Your task to perform on an android device: Open calendar and show me the third week of next month Image 0: 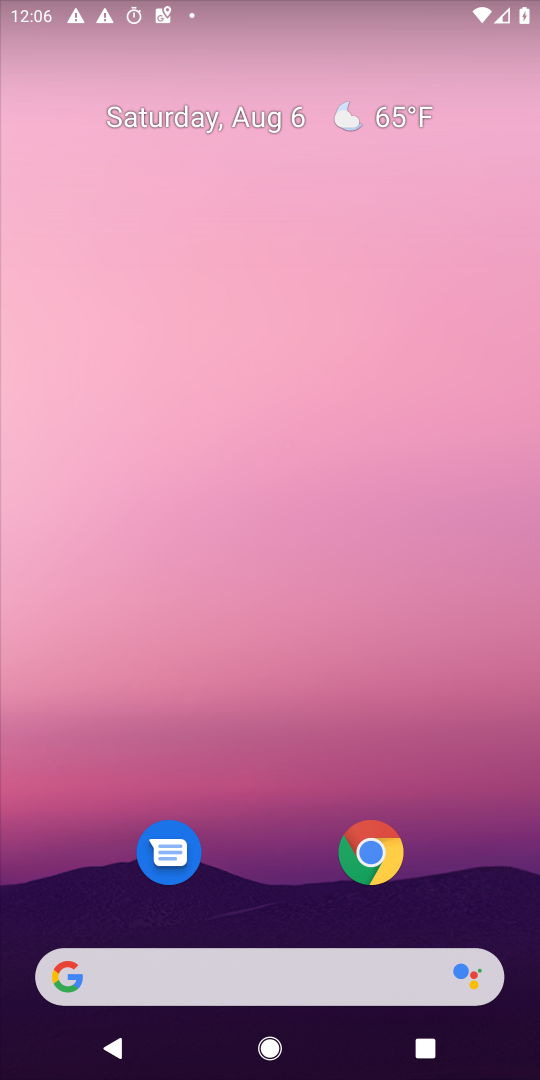
Step 0: drag from (356, 1014) to (215, 255)
Your task to perform on an android device: Open calendar and show me the third week of next month Image 1: 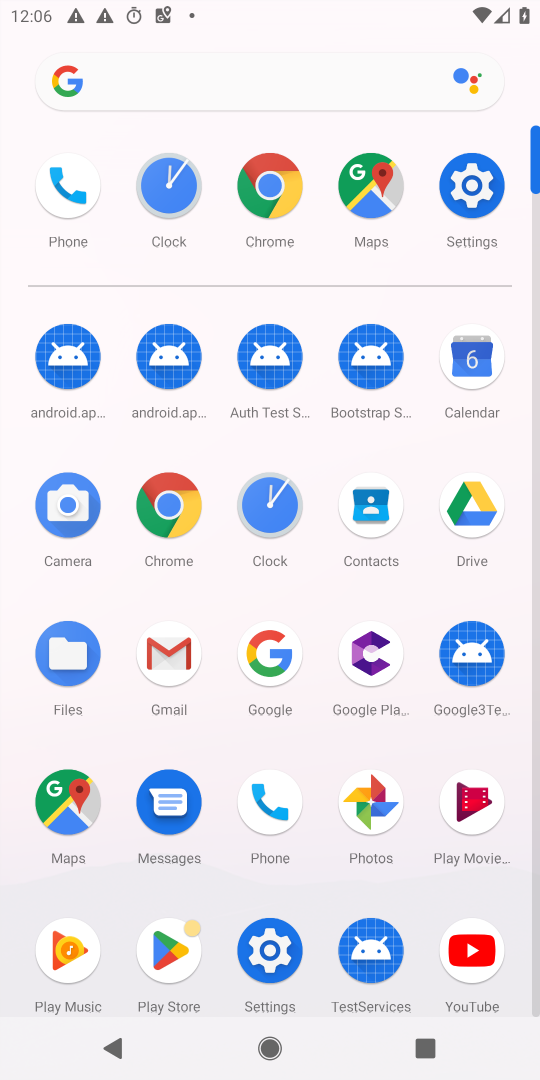
Step 1: click (469, 375)
Your task to perform on an android device: Open calendar and show me the third week of next month Image 2: 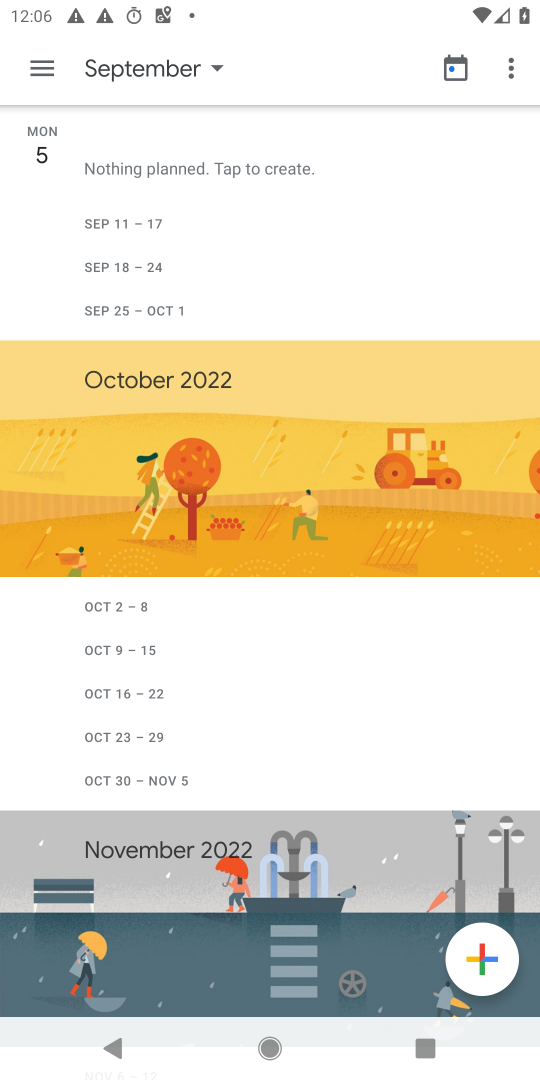
Step 2: click (38, 85)
Your task to perform on an android device: Open calendar and show me the third week of next month Image 3: 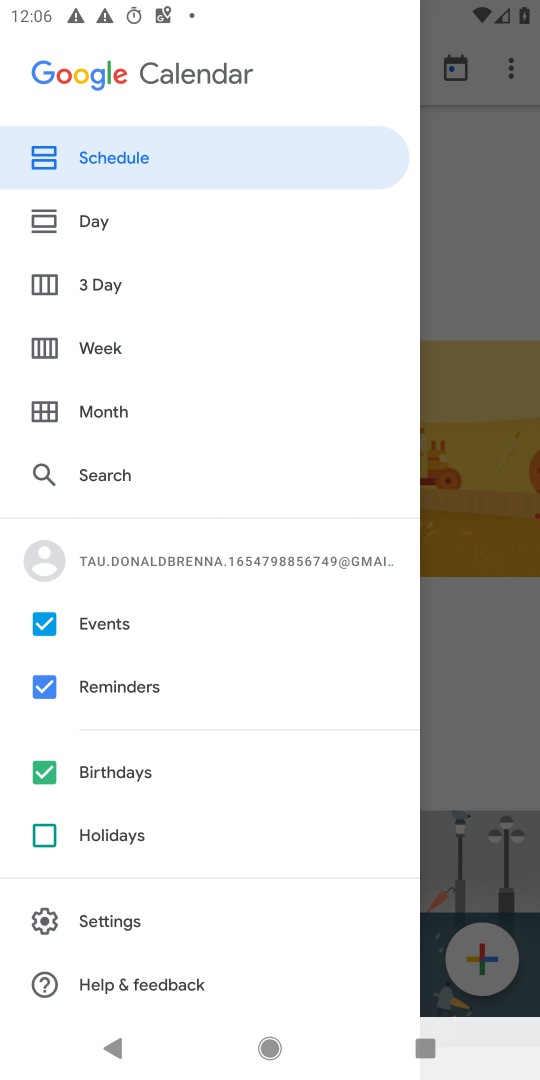
Step 3: click (117, 416)
Your task to perform on an android device: Open calendar and show me the third week of next month Image 4: 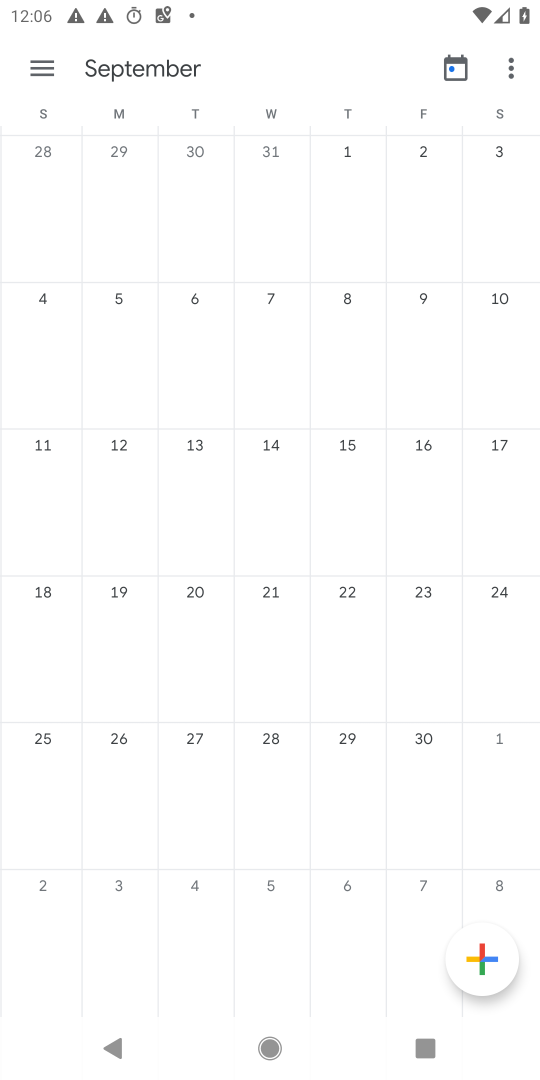
Step 4: click (128, 604)
Your task to perform on an android device: Open calendar and show me the third week of next month Image 5: 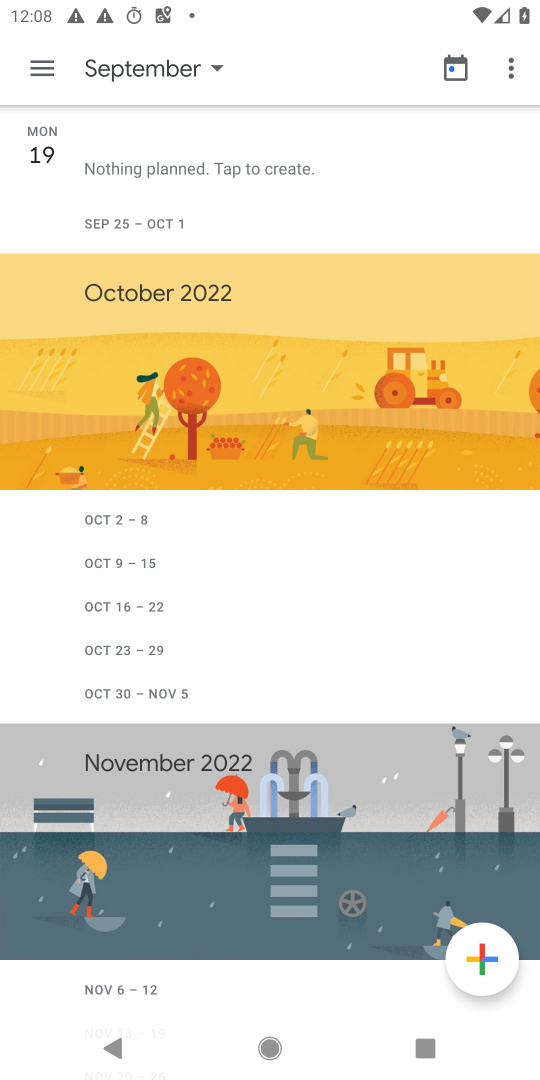
Step 5: task complete